Your task to perform on an android device: turn off airplane mode Image 0: 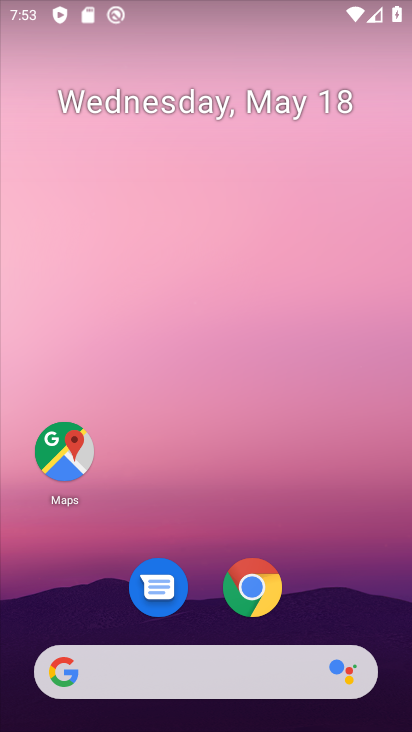
Step 0: drag from (256, 622) to (247, 1)
Your task to perform on an android device: turn off airplane mode Image 1: 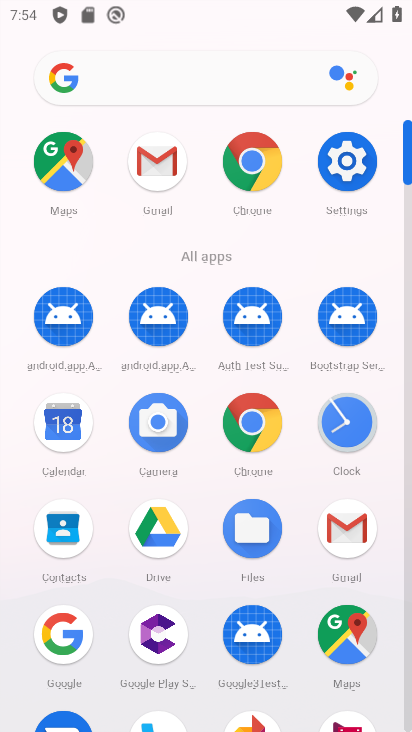
Step 1: click (339, 202)
Your task to perform on an android device: turn off airplane mode Image 2: 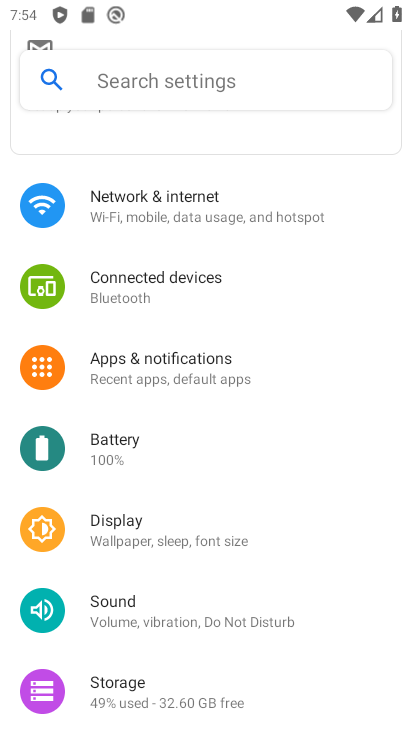
Step 2: click (254, 210)
Your task to perform on an android device: turn off airplane mode Image 3: 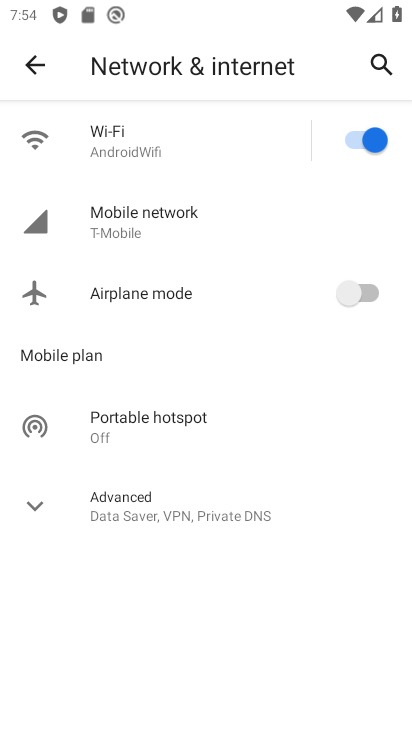
Step 3: task complete